Your task to perform on an android device: turn on airplane mode Image 0: 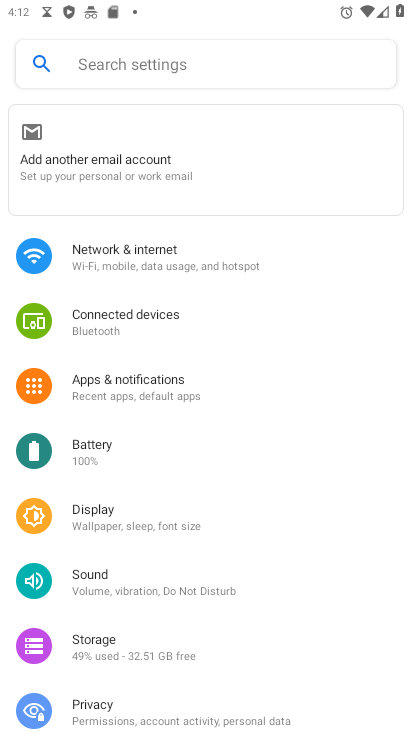
Step 0: press back button
Your task to perform on an android device: turn on airplane mode Image 1: 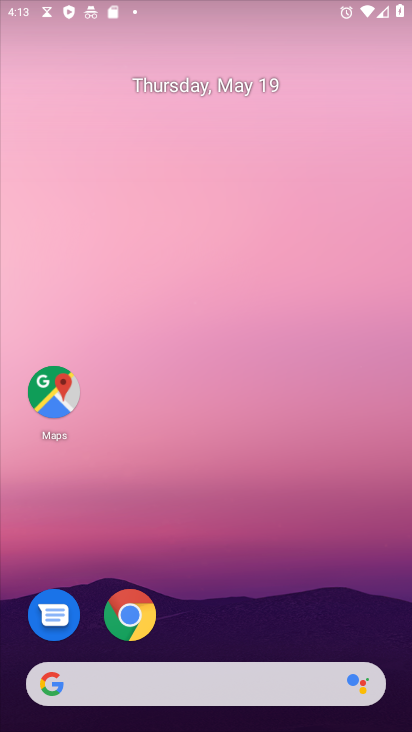
Step 1: drag from (224, 580) to (113, 139)
Your task to perform on an android device: turn on airplane mode Image 2: 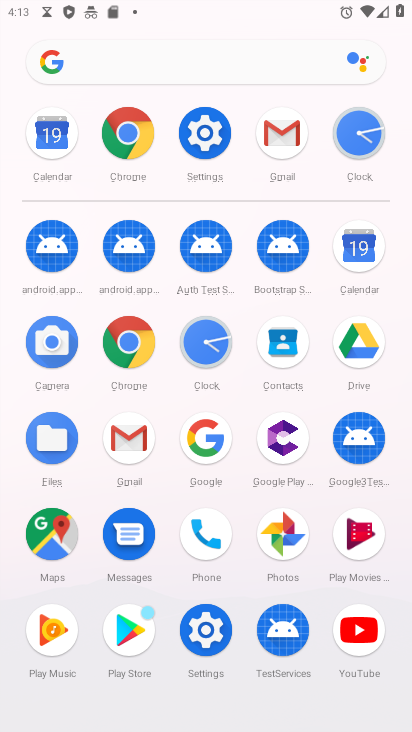
Step 2: click (211, 135)
Your task to perform on an android device: turn on airplane mode Image 3: 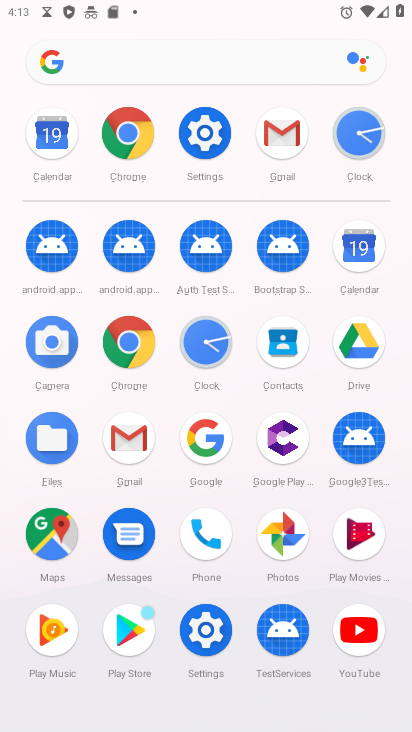
Step 3: click (211, 135)
Your task to perform on an android device: turn on airplane mode Image 4: 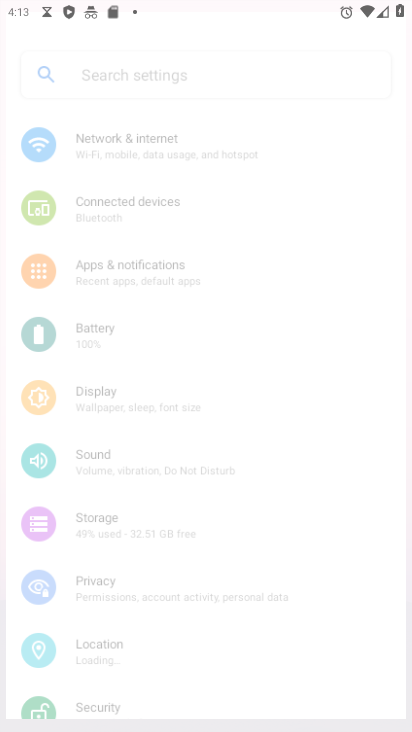
Step 4: click (211, 135)
Your task to perform on an android device: turn on airplane mode Image 5: 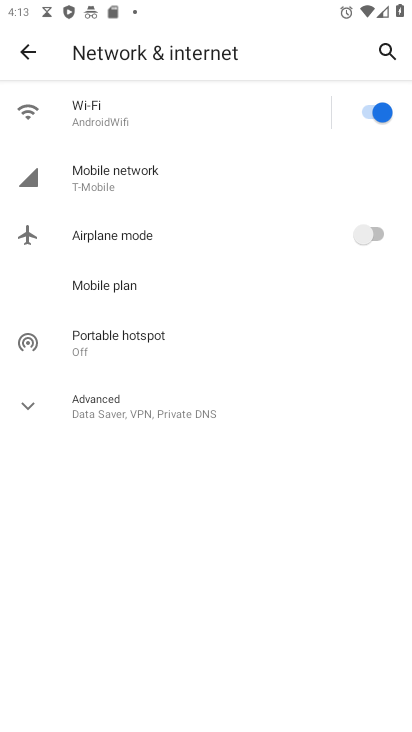
Step 5: click (29, 58)
Your task to perform on an android device: turn on airplane mode Image 6: 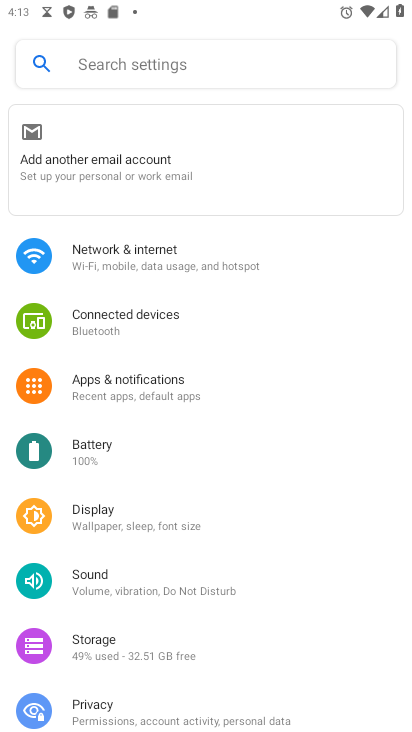
Step 6: click (128, 264)
Your task to perform on an android device: turn on airplane mode Image 7: 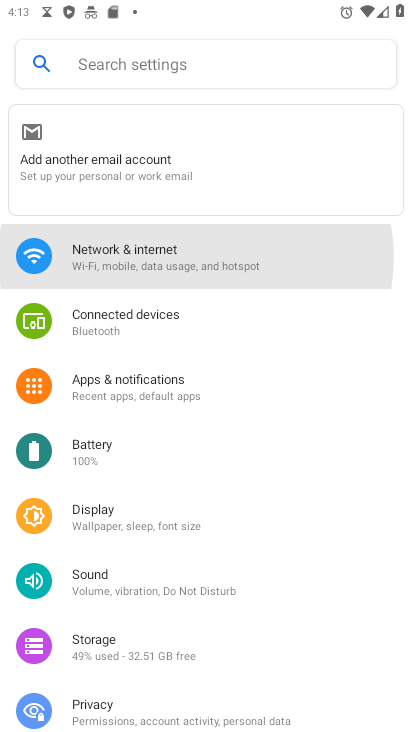
Step 7: click (128, 264)
Your task to perform on an android device: turn on airplane mode Image 8: 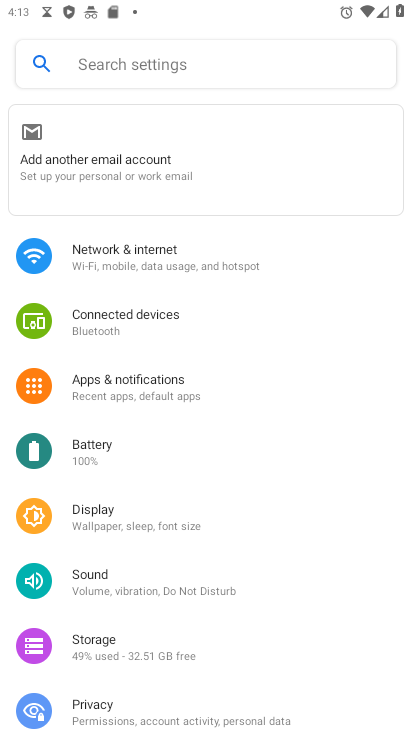
Step 8: click (128, 264)
Your task to perform on an android device: turn on airplane mode Image 9: 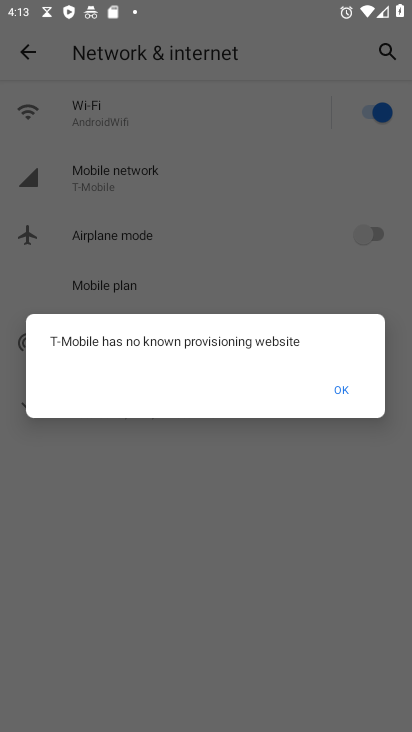
Step 9: click (333, 380)
Your task to perform on an android device: turn on airplane mode Image 10: 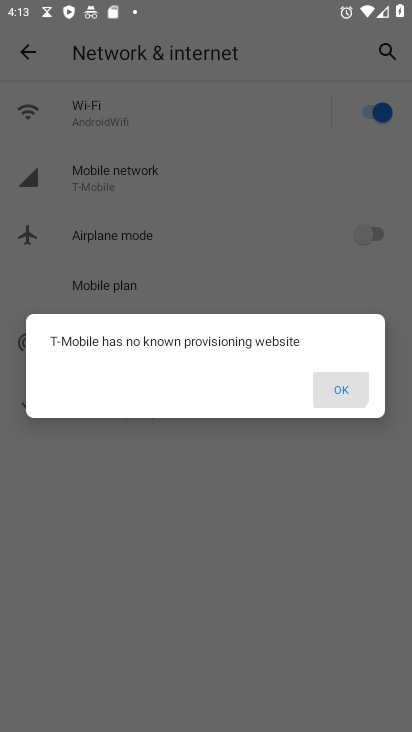
Step 10: click (333, 380)
Your task to perform on an android device: turn on airplane mode Image 11: 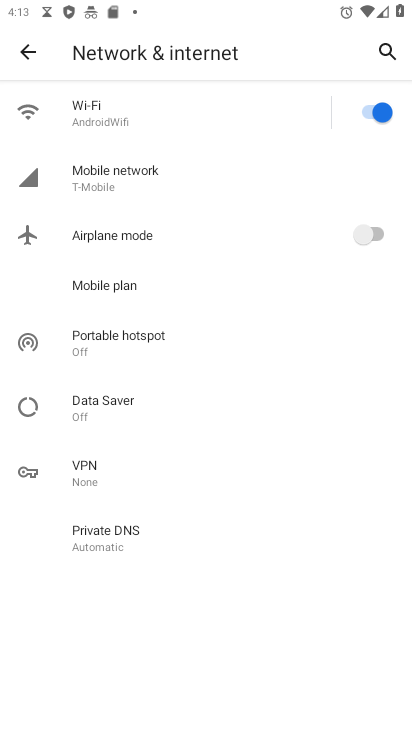
Step 11: click (365, 241)
Your task to perform on an android device: turn on airplane mode Image 12: 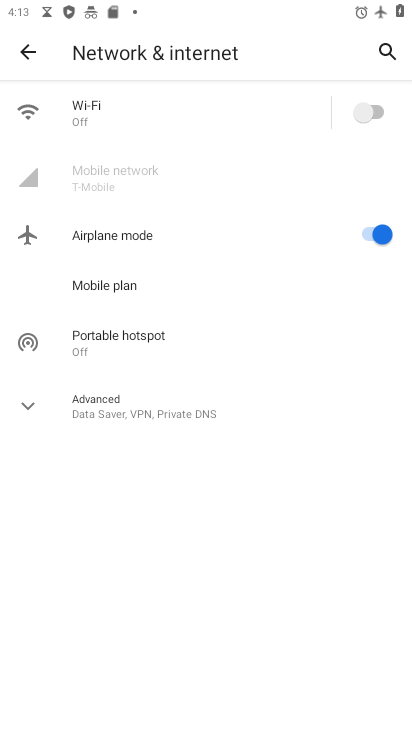
Step 12: task complete